Your task to perform on an android device: Open maps Image 0: 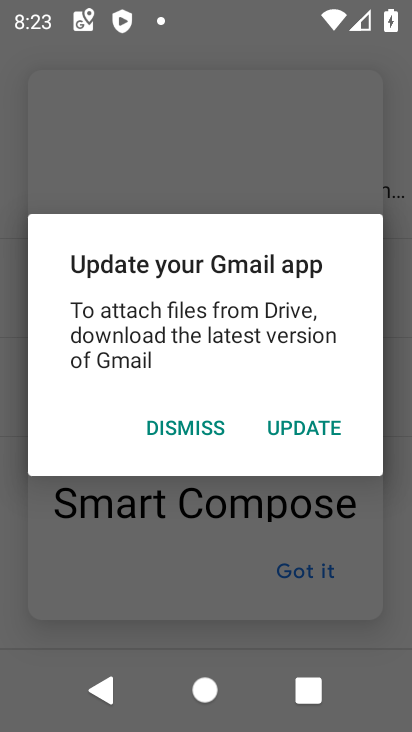
Step 0: press home button
Your task to perform on an android device: Open maps Image 1: 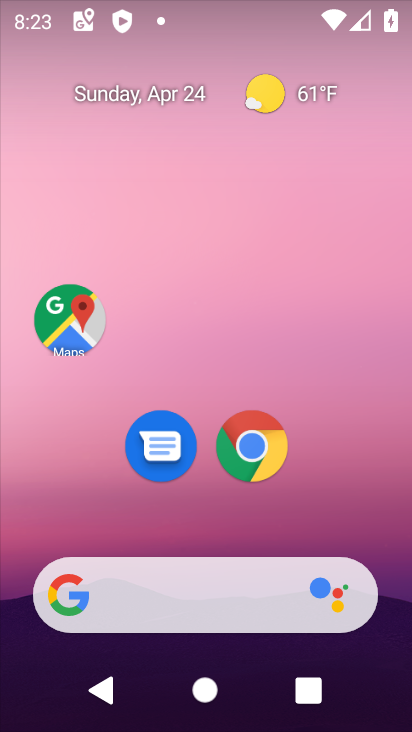
Step 1: drag from (236, 556) to (272, 0)
Your task to perform on an android device: Open maps Image 2: 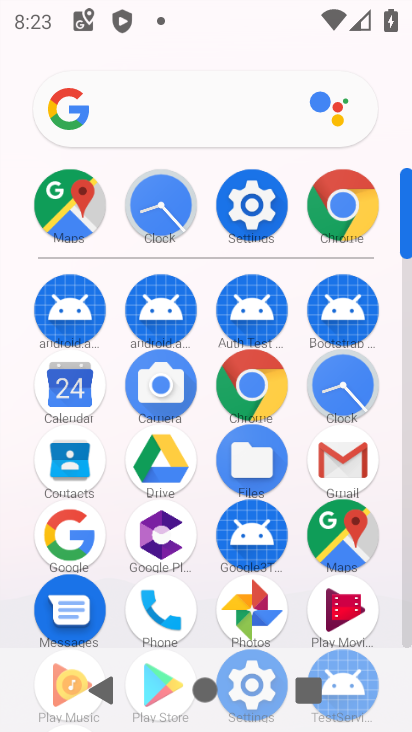
Step 2: click (65, 226)
Your task to perform on an android device: Open maps Image 3: 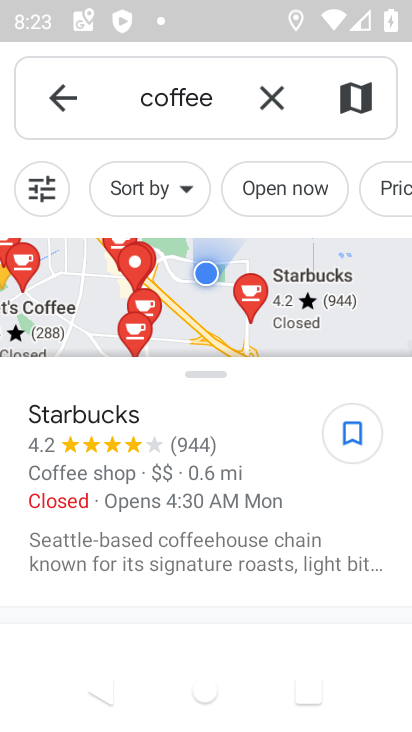
Step 3: click (269, 104)
Your task to perform on an android device: Open maps Image 4: 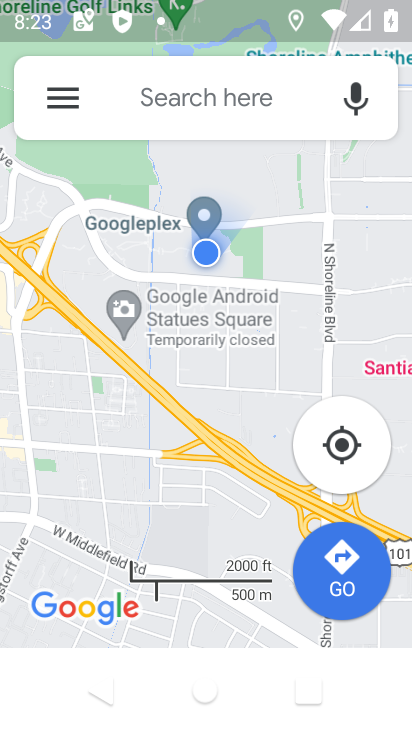
Step 4: click (221, 102)
Your task to perform on an android device: Open maps Image 5: 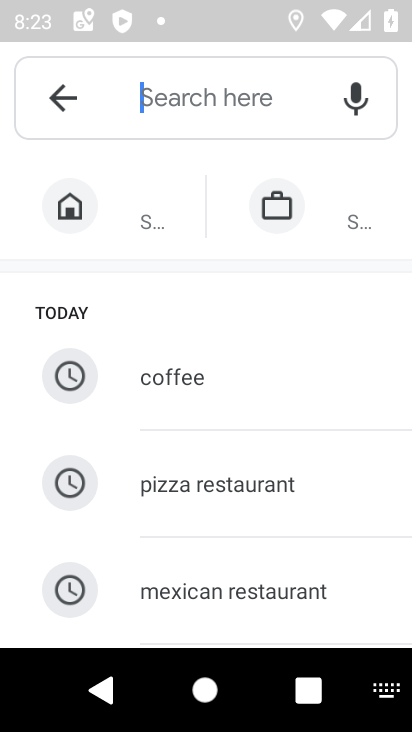
Step 5: type "maps"
Your task to perform on an android device: Open maps Image 6: 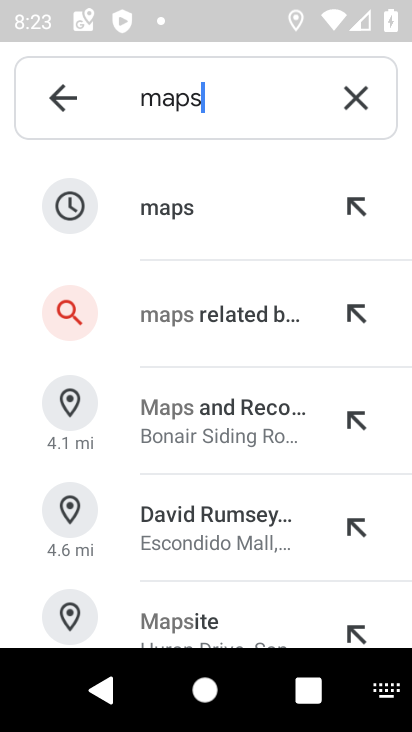
Step 6: click (266, 213)
Your task to perform on an android device: Open maps Image 7: 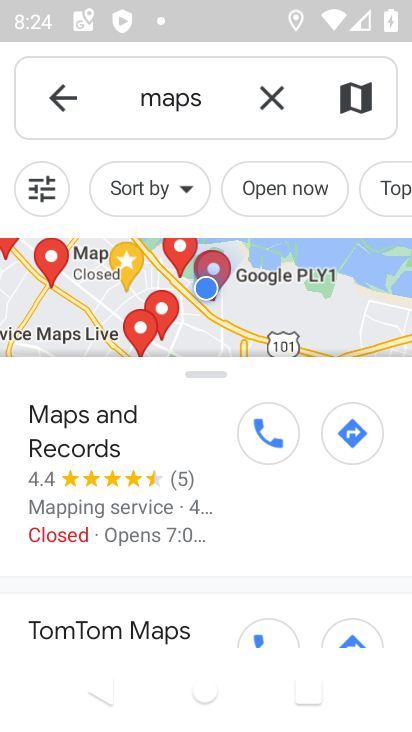
Step 7: task complete